Your task to perform on an android device: Open notification settings Image 0: 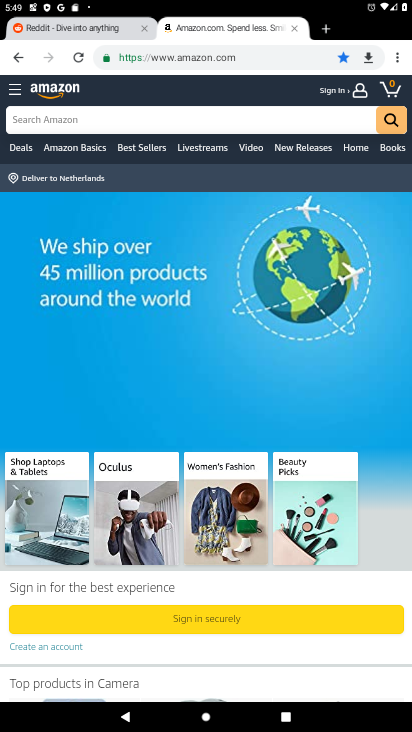
Step 0: press home button
Your task to perform on an android device: Open notification settings Image 1: 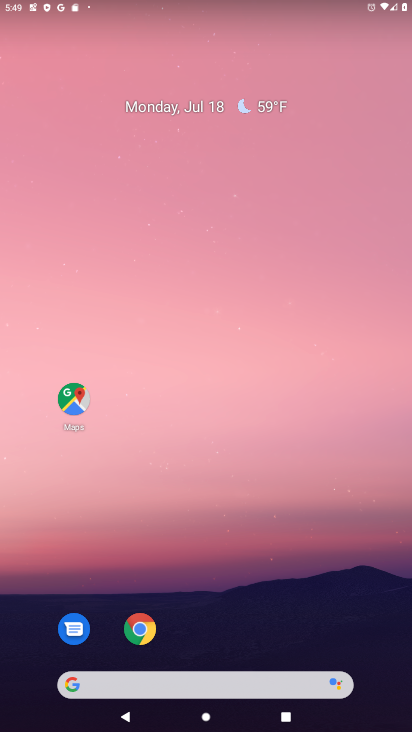
Step 1: drag from (288, 590) to (279, 96)
Your task to perform on an android device: Open notification settings Image 2: 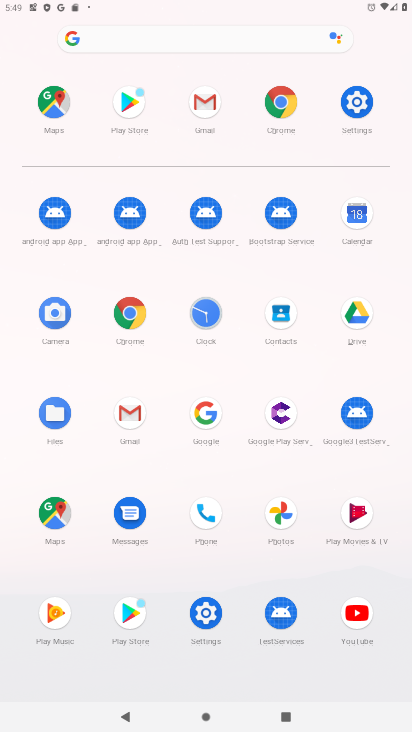
Step 2: click (351, 97)
Your task to perform on an android device: Open notification settings Image 3: 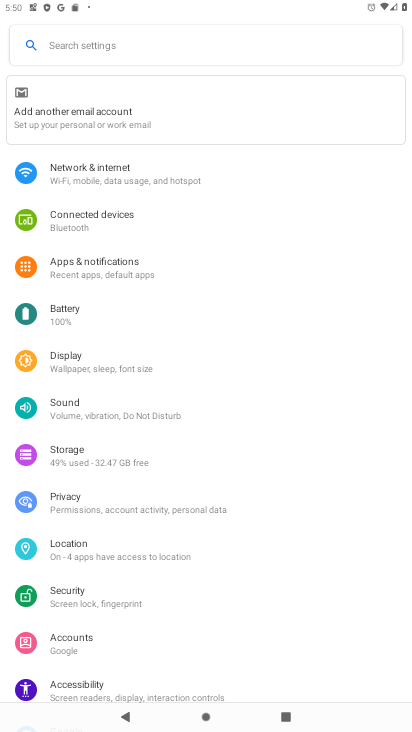
Step 3: click (119, 270)
Your task to perform on an android device: Open notification settings Image 4: 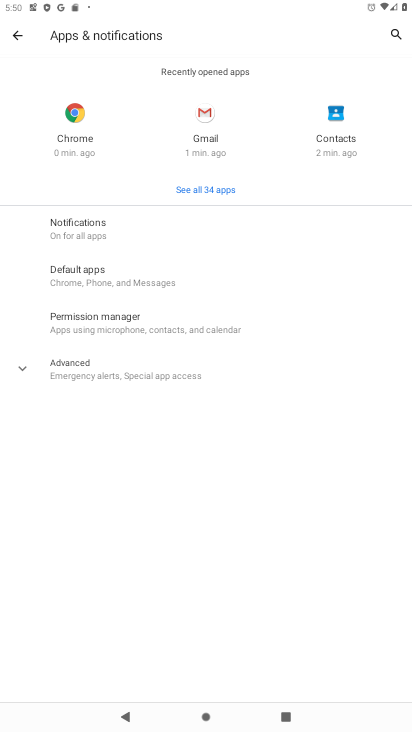
Step 4: click (87, 230)
Your task to perform on an android device: Open notification settings Image 5: 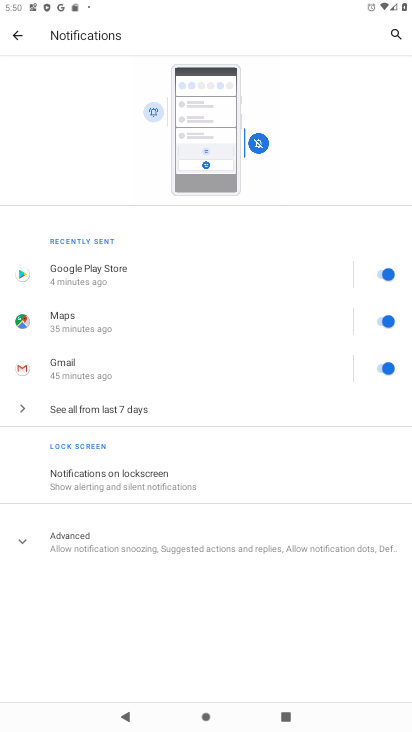
Step 5: task complete